Your task to perform on an android device: Open CNN.com Image 0: 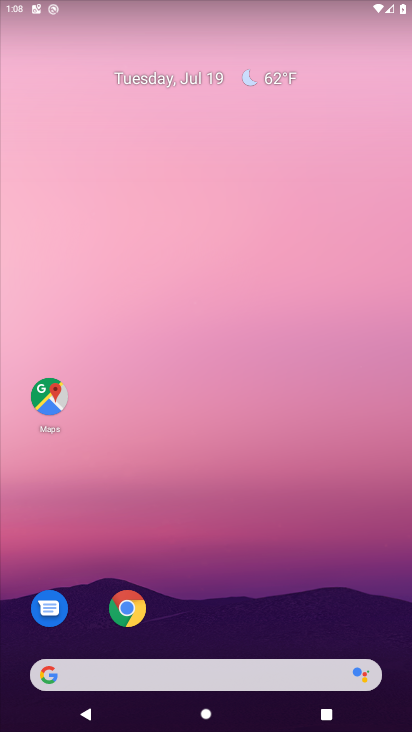
Step 0: click (125, 602)
Your task to perform on an android device: Open CNN.com Image 1: 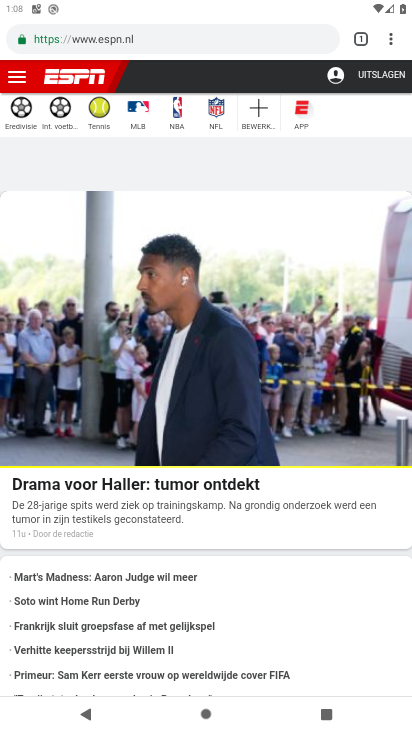
Step 1: click (357, 36)
Your task to perform on an android device: Open CNN.com Image 2: 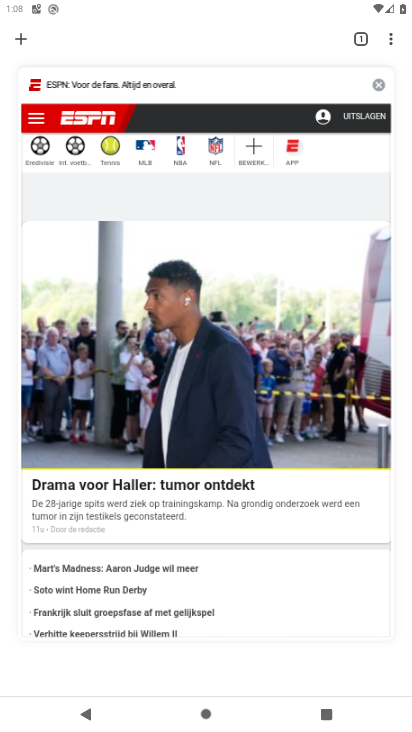
Step 2: click (17, 39)
Your task to perform on an android device: Open CNN.com Image 3: 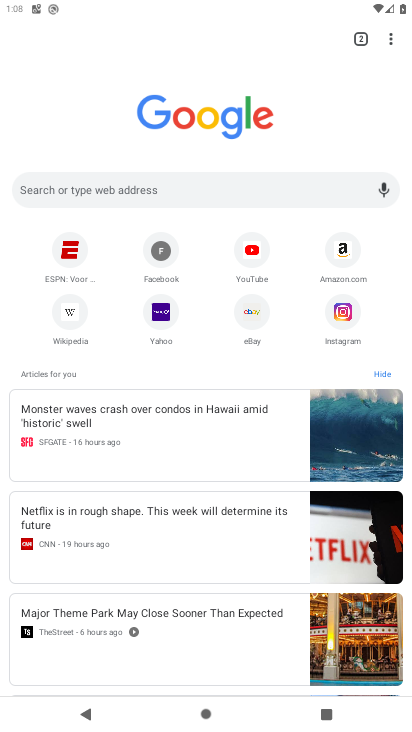
Step 3: click (96, 187)
Your task to perform on an android device: Open CNN.com Image 4: 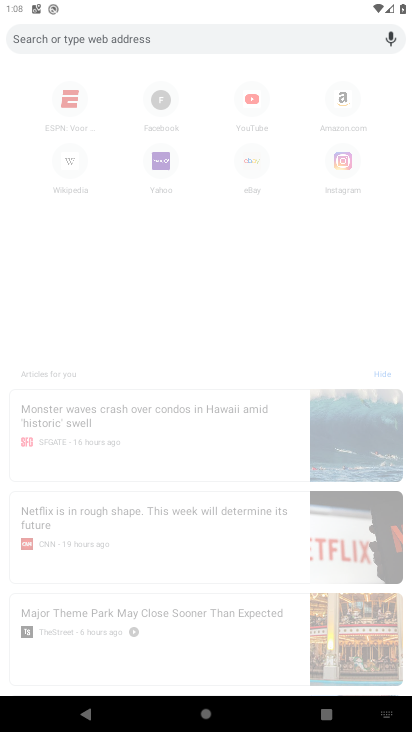
Step 4: type "cnn.com"
Your task to perform on an android device: Open CNN.com Image 5: 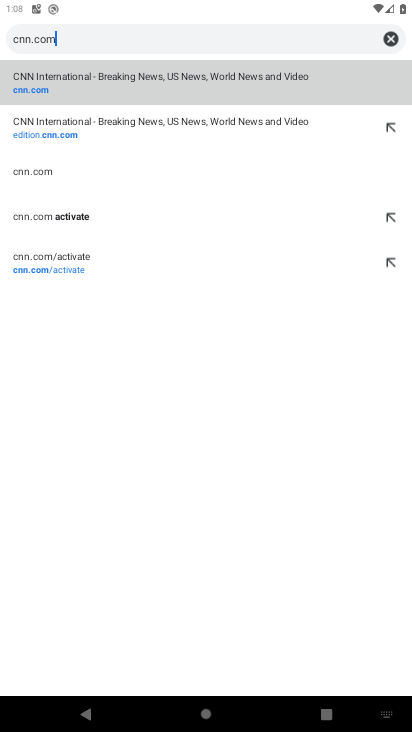
Step 5: click (67, 88)
Your task to perform on an android device: Open CNN.com Image 6: 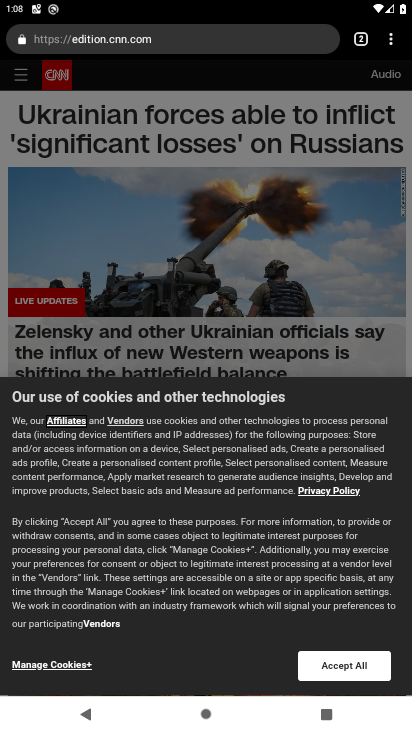
Step 6: click (342, 658)
Your task to perform on an android device: Open CNN.com Image 7: 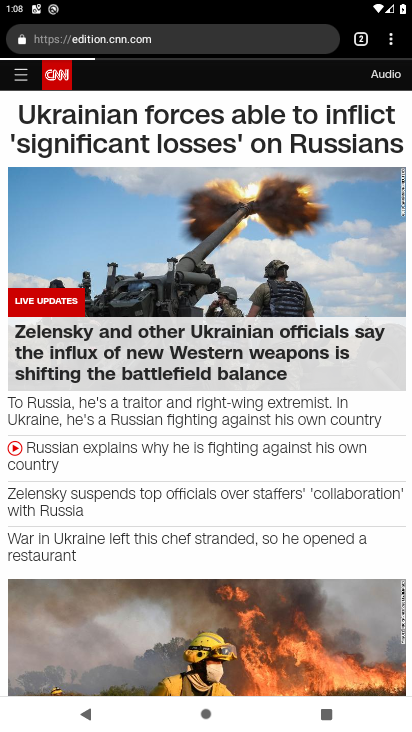
Step 7: task complete